Your task to perform on an android device: check data usage Image 0: 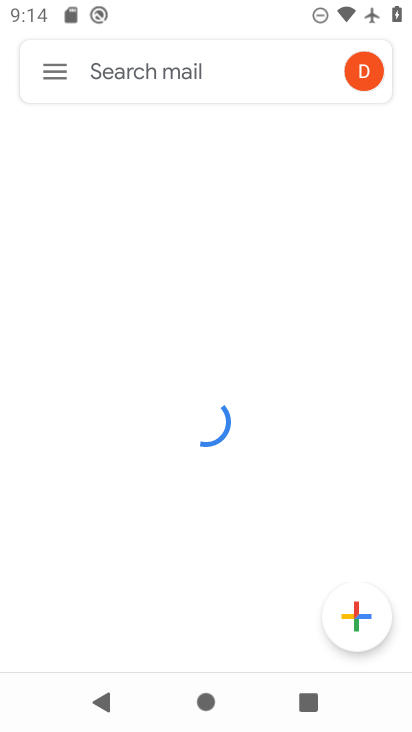
Step 0: press home button
Your task to perform on an android device: check data usage Image 1: 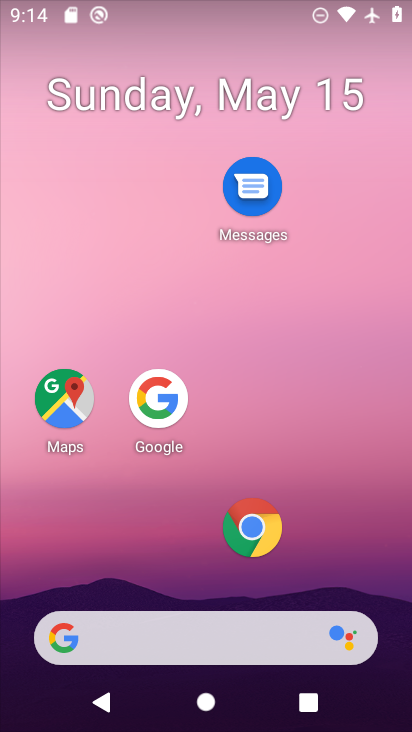
Step 1: drag from (179, 640) to (306, 125)
Your task to perform on an android device: check data usage Image 2: 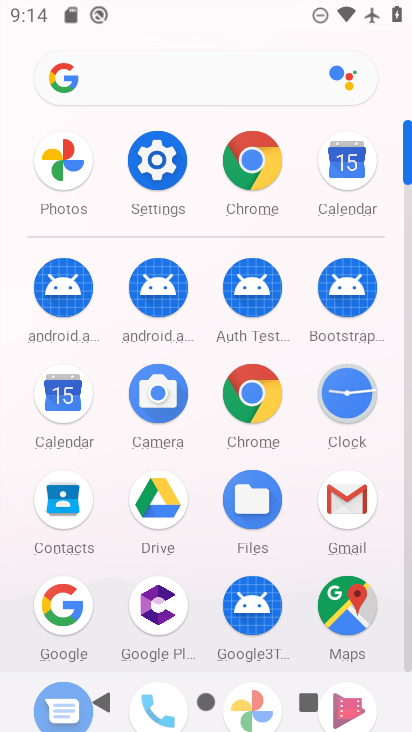
Step 2: click (164, 158)
Your task to perform on an android device: check data usage Image 3: 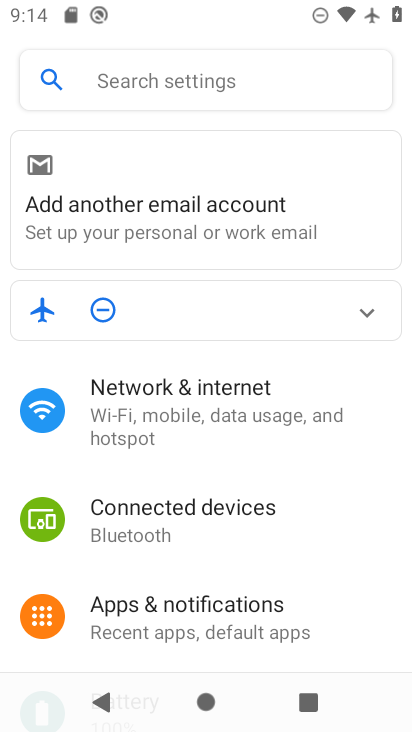
Step 3: click (167, 397)
Your task to perform on an android device: check data usage Image 4: 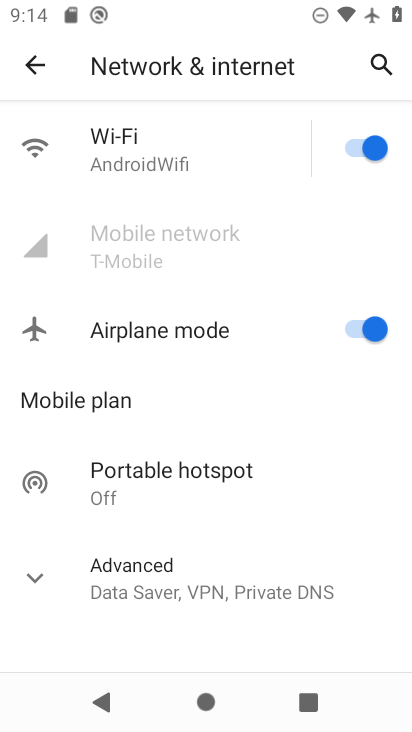
Step 4: click (185, 160)
Your task to perform on an android device: check data usage Image 5: 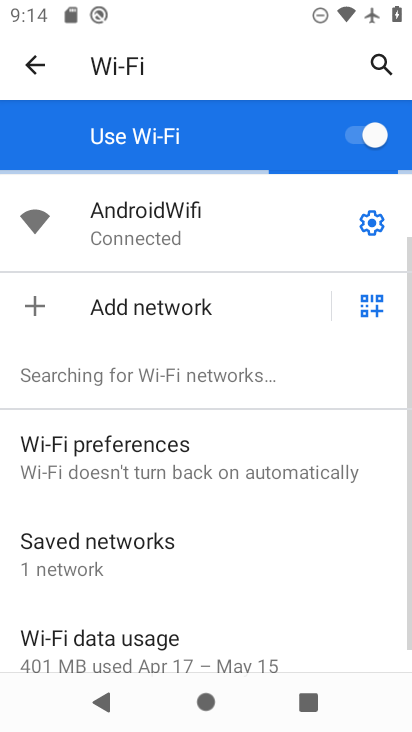
Step 5: drag from (205, 559) to (233, 334)
Your task to perform on an android device: check data usage Image 6: 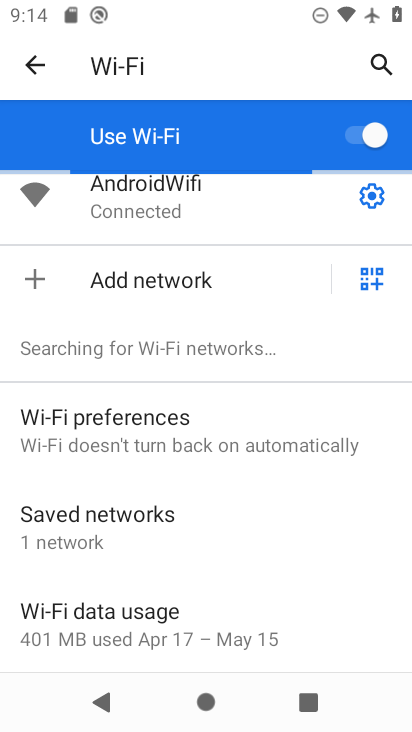
Step 6: click (129, 614)
Your task to perform on an android device: check data usage Image 7: 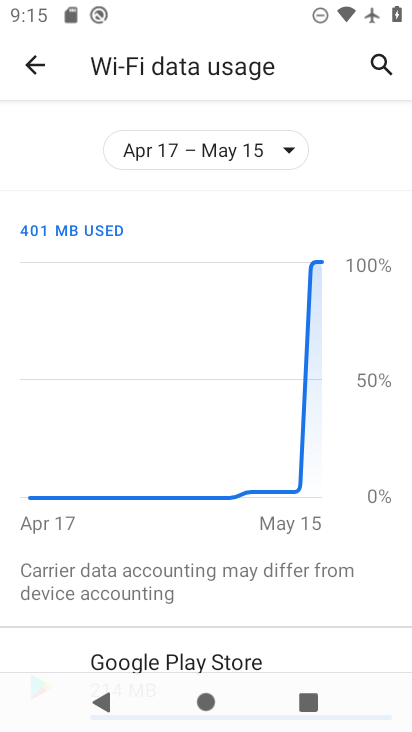
Step 7: task complete